Your task to perform on an android device: What is the recent news? Image 0: 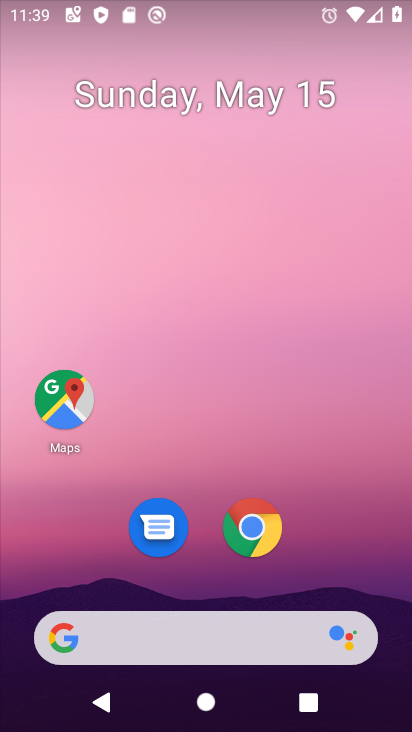
Step 0: drag from (324, 457) to (317, 141)
Your task to perform on an android device: What is the recent news? Image 1: 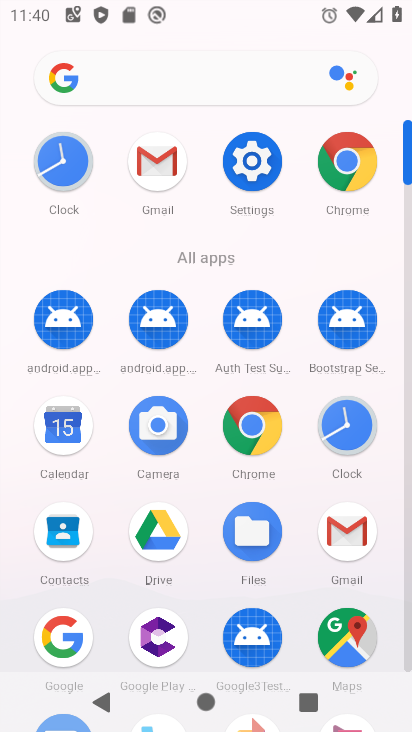
Step 1: click (160, 93)
Your task to perform on an android device: What is the recent news? Image 2: 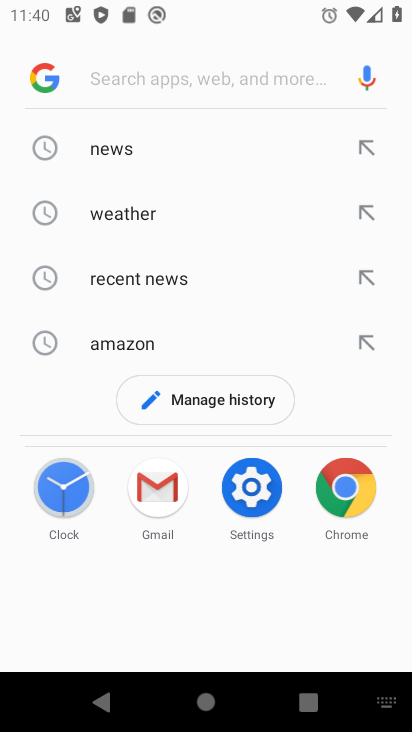
Step 2: click (153, 276)
Your task to perform on an android device: What is the recent news? Image 3: 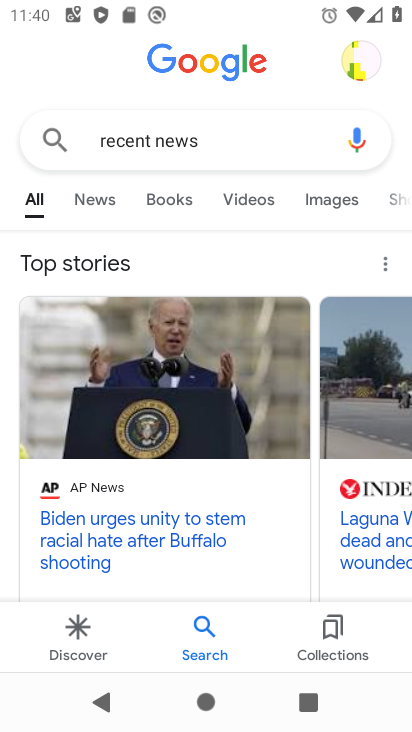
Step 3: task complete